Your task to perform on an android device: Open Wikipedia Image 0: 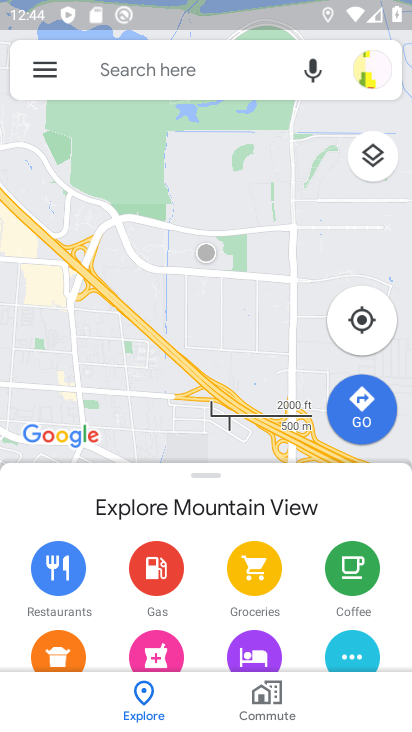
Step 0: press home button
Your task to perform on an android device: Open Wikipedia Image 1: 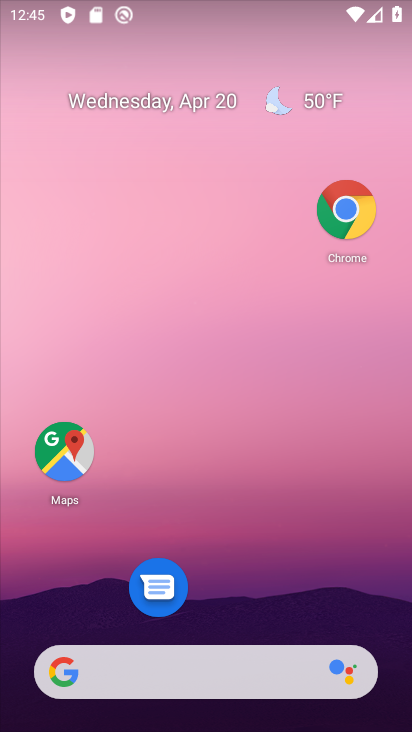
Step 1: click (340, 210)
Your task to perform on an android device: Open Wikipedia Image 2: 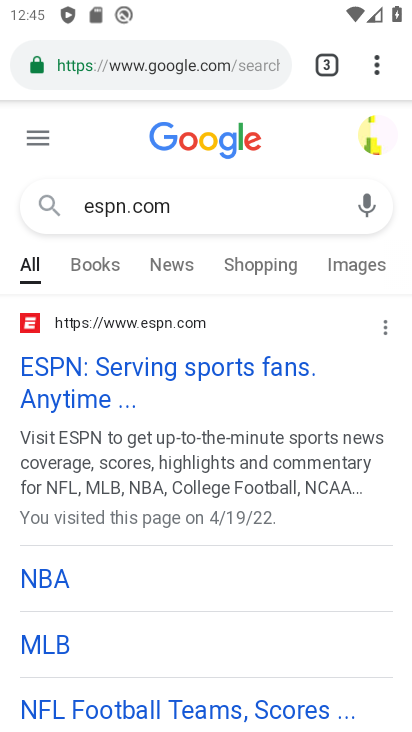
Step 2: click (327, 68)
Your task to perform on an android device: Open Wikipedia Image 3: 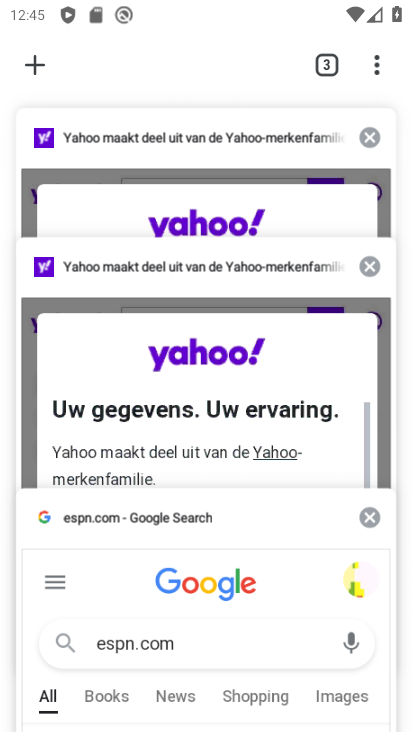
Step 3: click (37, 65)
Your task to perform on an android device: Open Wikipedia Image 4: 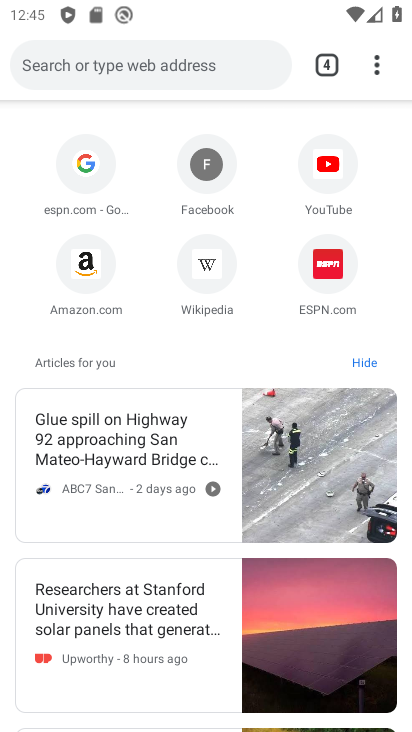
Step 4: click (200, 255)
Your task to perform on an android device: Open Wikipedia Image 5: 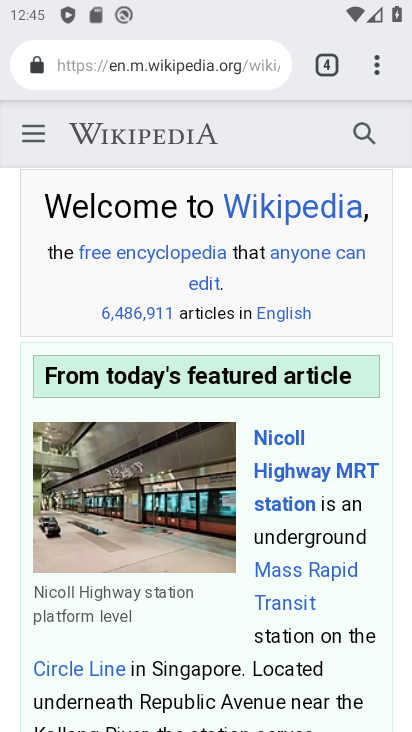
Step 5: task complete